Your task to perform on an android device: Go to internet settings Image 0: 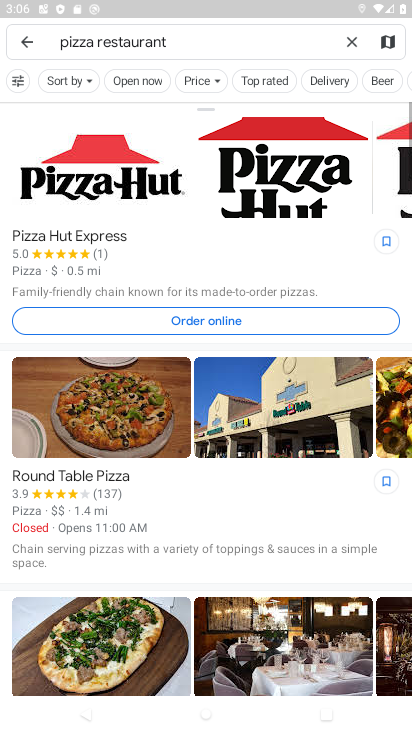
Step 0: press back button
Your task to perform on an android device: Go to internet settings Image 1: 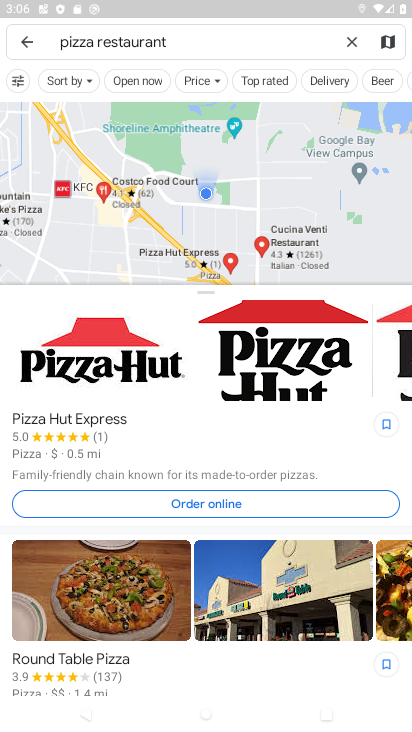
Step 1: press back button
Your task to perform on an android device: Go to internet settings Image 2: 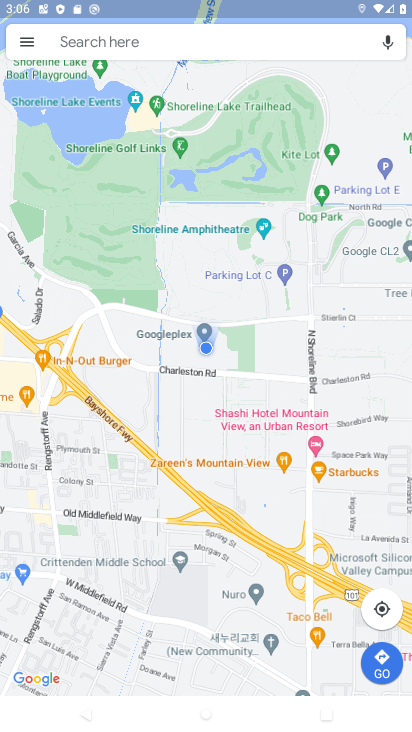
Step 2: press back button
Your task to perform on an android device: Go to internet settings Image 3: 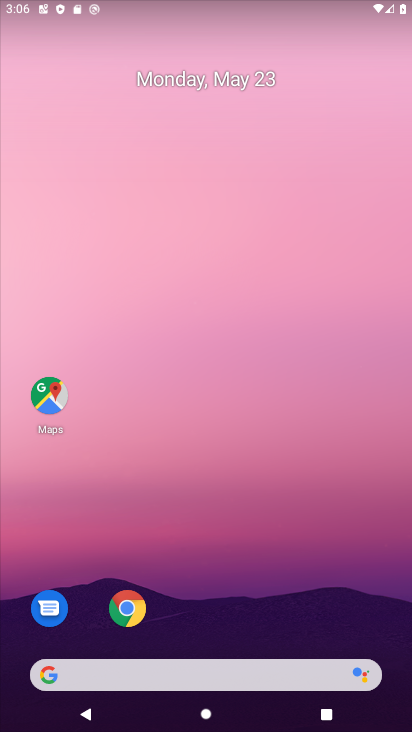
Step 3: drag from (229, 606) to (147, 99)
Your task to perform on an android device: Go to internet settings Image 4: 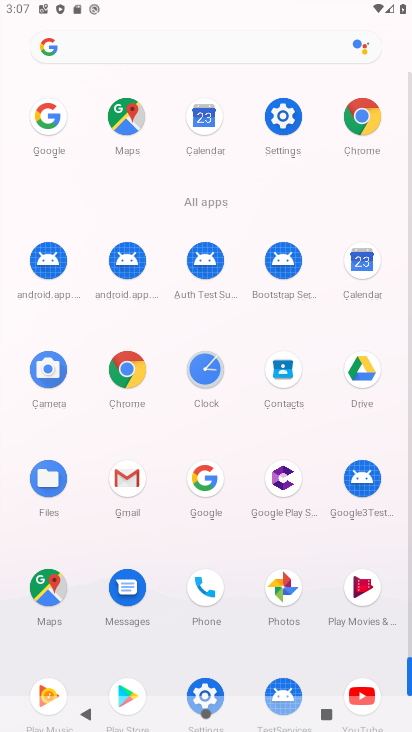
Step 4: drag from (233, 551) to (234, 458)
Your task to perform on an android device: Go to internet settings Image 5: 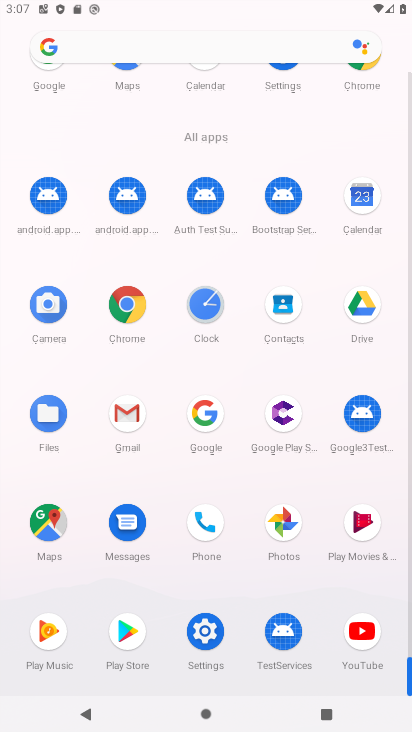
Step 5: click (207, 631)
Your task to perform on an android device: Go to internet settings Image 6: 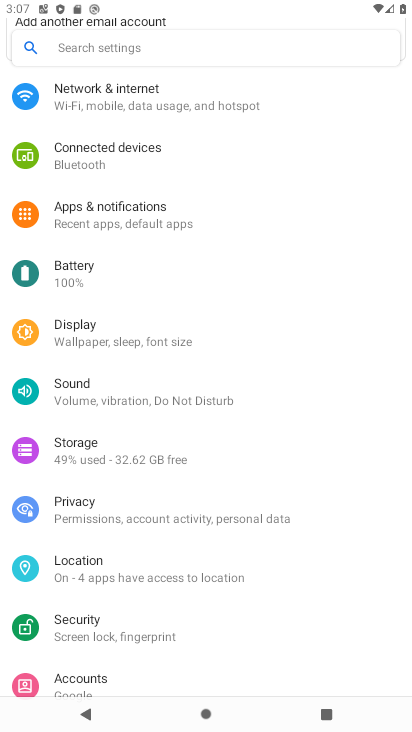
Step 6: click (113, 107)
Your task to perform on an android device: Go to internet settings Image 7: 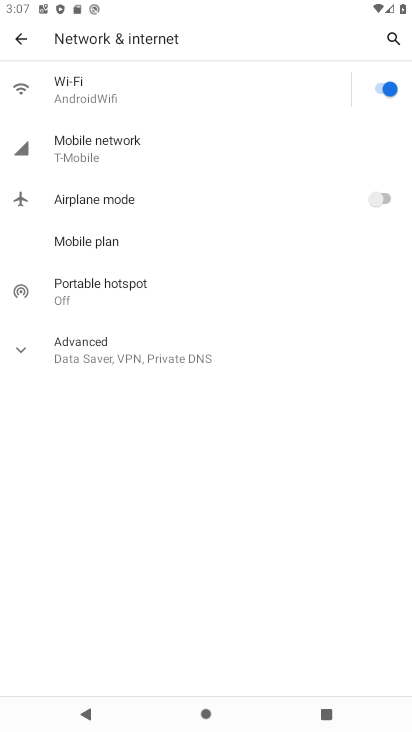
Step 7: click (101, 109)
Your task to perform on an android device: Go to internet settings Image 8: 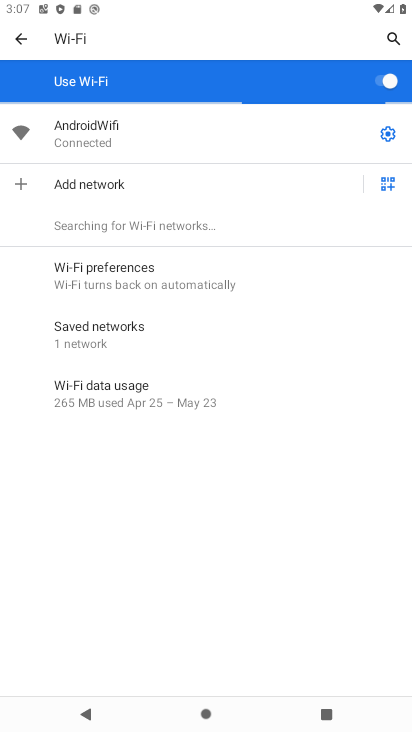
Step 8: click (386, 134)
Your task to perform on an android device: Go to internet settings Image 9: 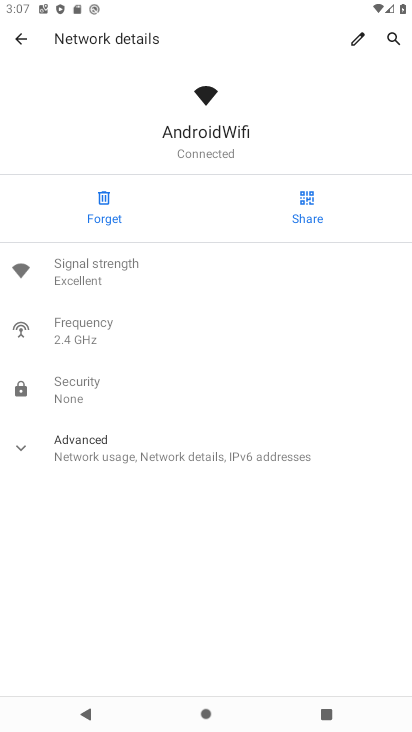
Step 9: task complete